Your task to perform on an android device: toggle pop-ups in chrome Image 0: 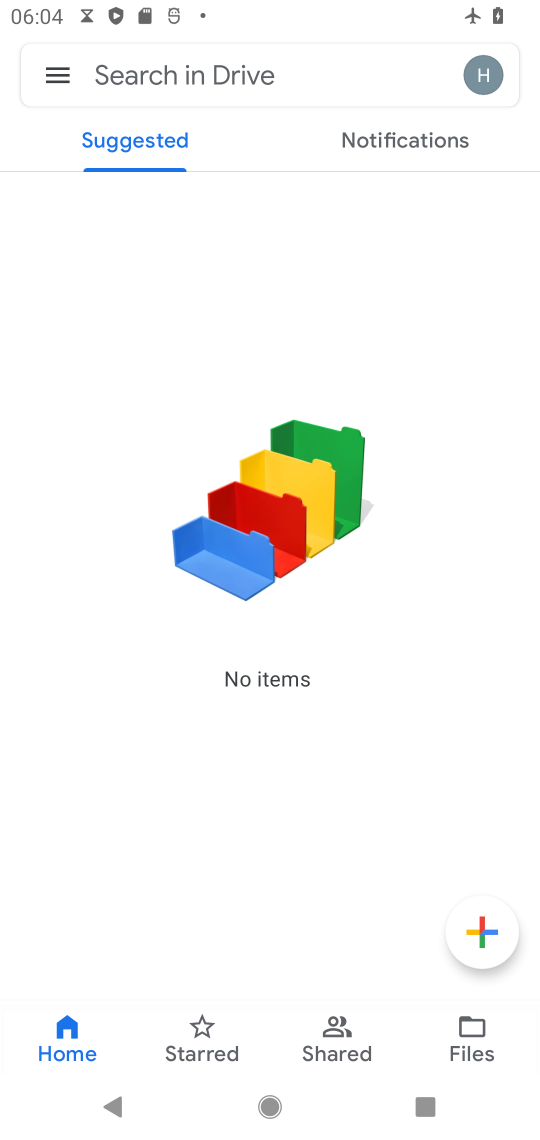
Step 0: press home button
Your task to perform on an android device: toggle pop-ups in chrome Image 1: 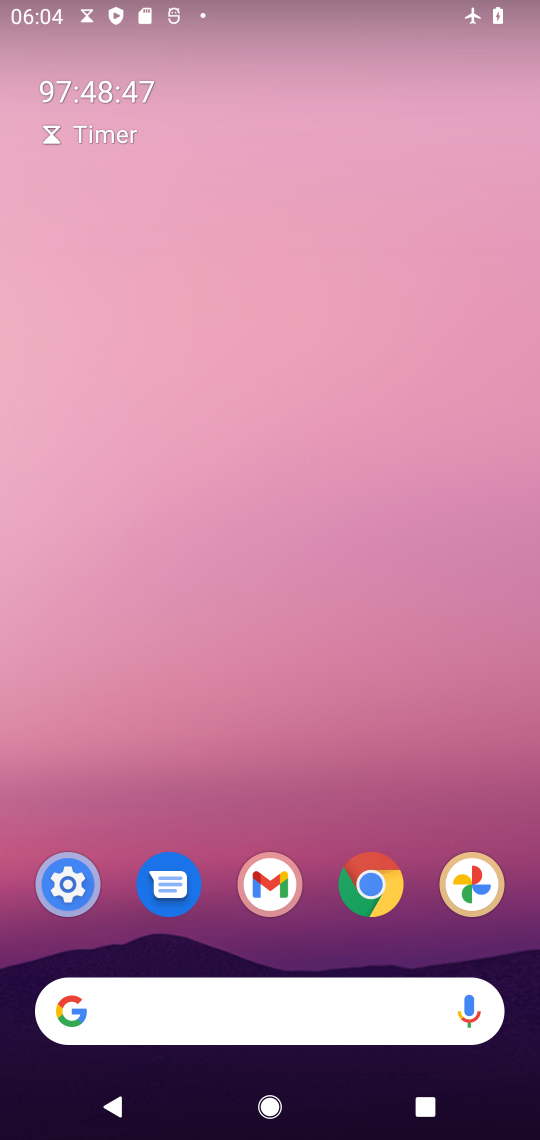
Step 1: drag from (347, 808) to (377, 183)
Your task to perform on an android device: toggle pop-ups in chrome Image 2: 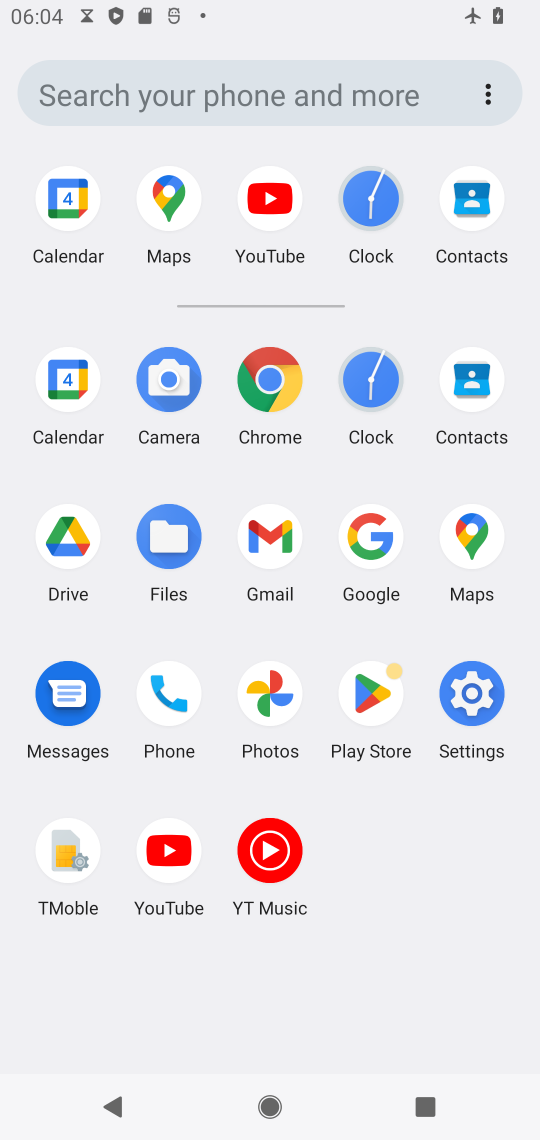
Step 2: click (279, 372)
Your task to perform on an android device: toggle pop-ups in chrome Image 3: 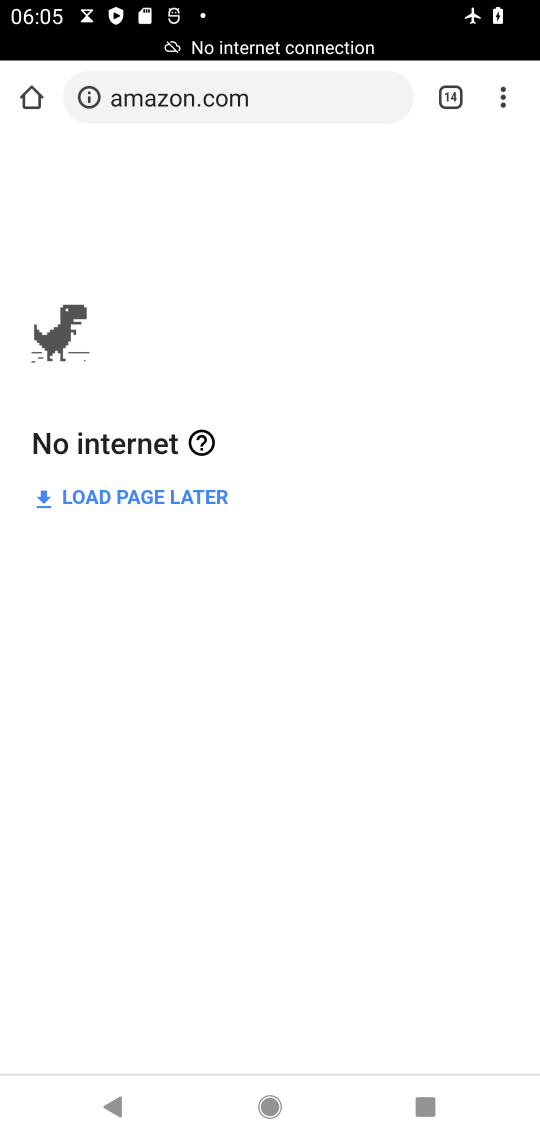
Step 3: click (524, 83)
Your task to perform on an android device: toggle pop-ups in chrome Image 4: 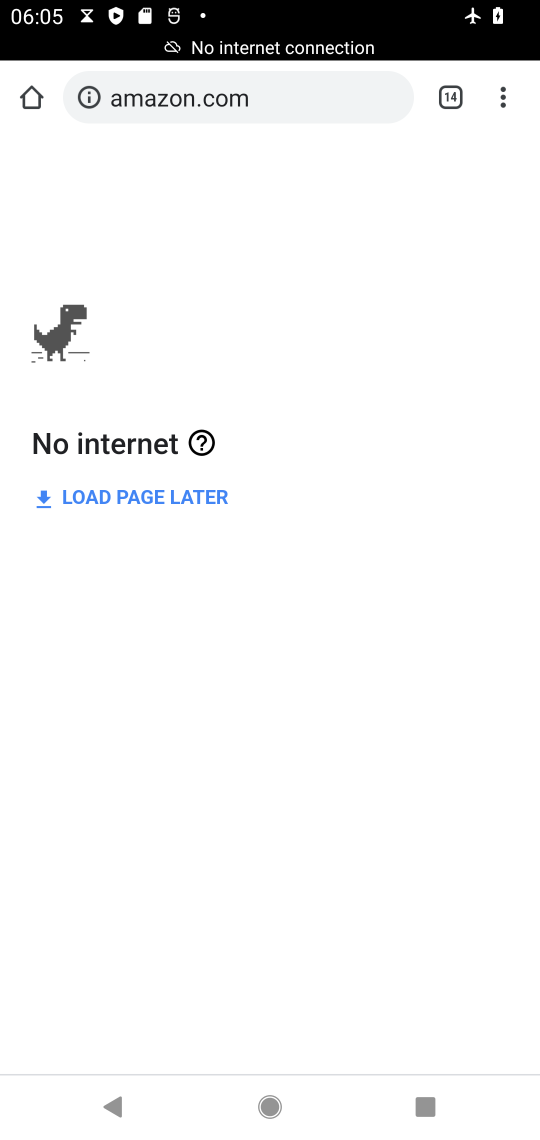
Step 4: click (510, 92)
Your task to perform on an android device: toggle pop-ups in chrome Image 5: 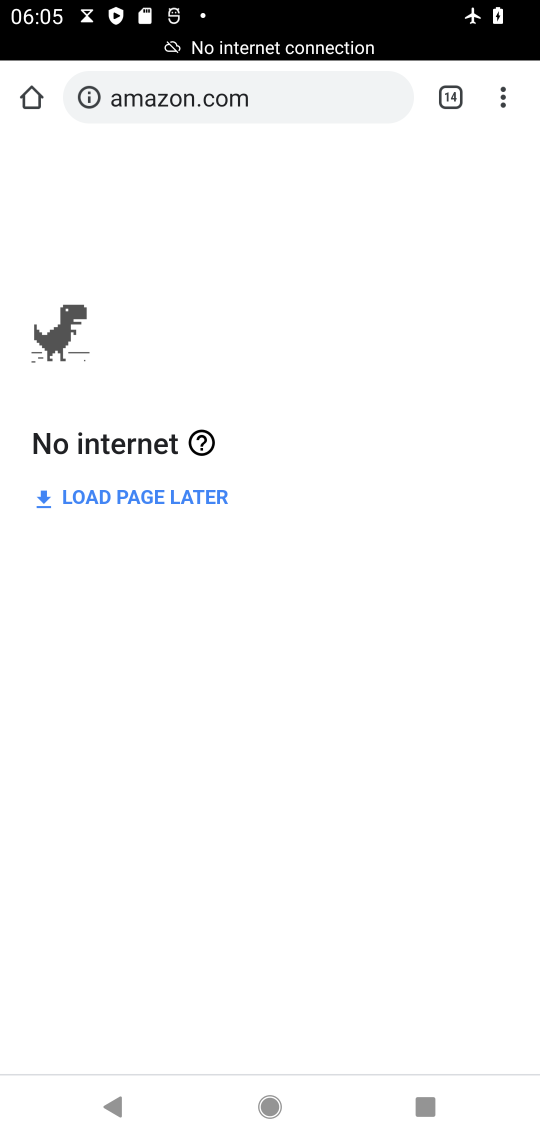
Step 5: click (497, 112)
Your task to perform on an android device: toggle pop-ups in chrome Image 6: 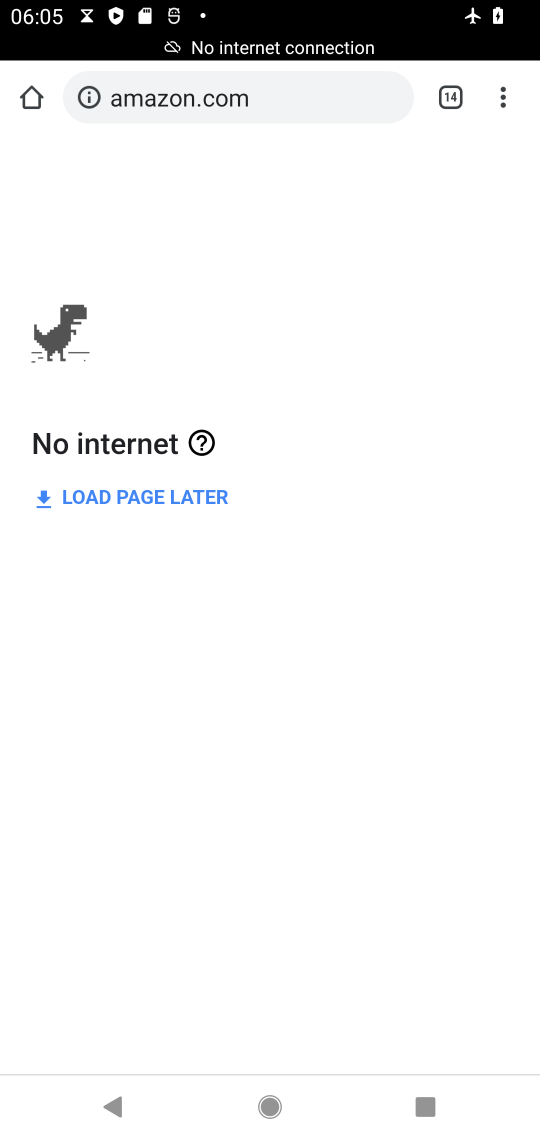
Step 6: click (487, 99)
Your task to perform on an android device: toggle pop-ups in chrome Image 7: 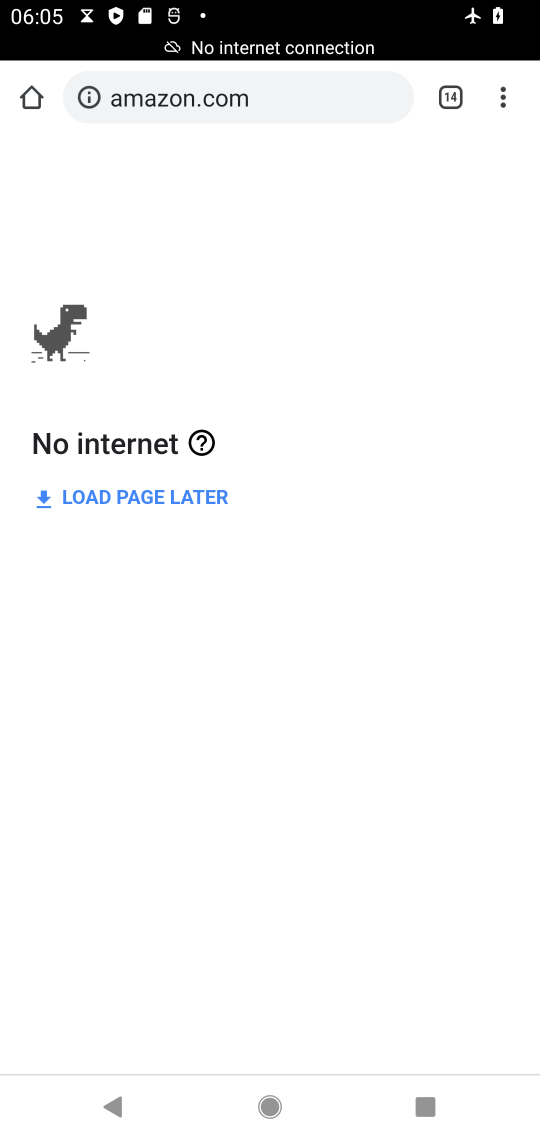
Step 7: click (509, 94)
Your task to perform on an android device: toggle pop-ups in chrome Image 8: 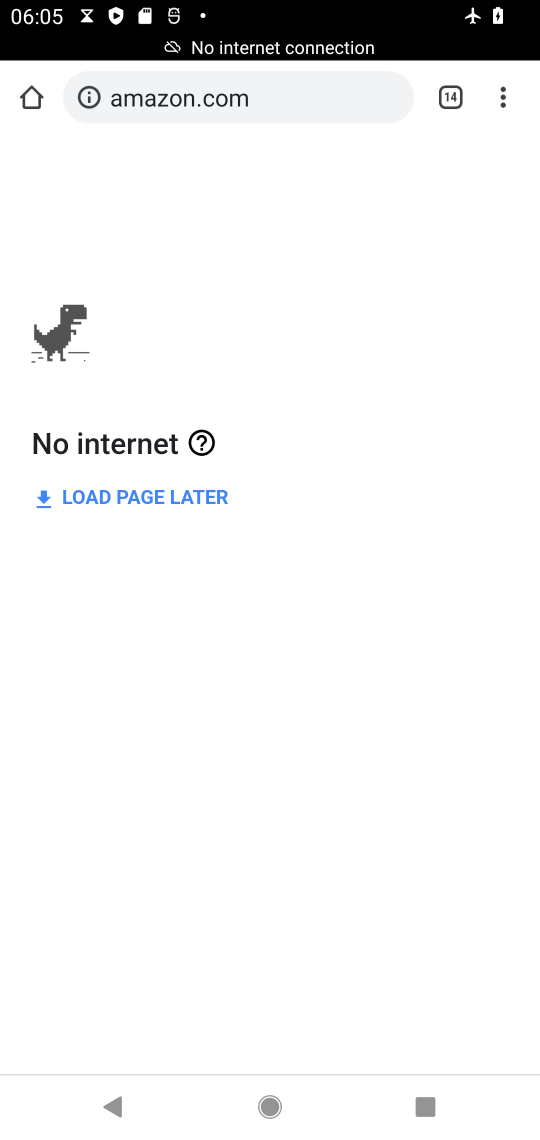
Step 8: click (504, 94)
Your task to perform on an android device: toggle pop-ups in chrome Image 9: 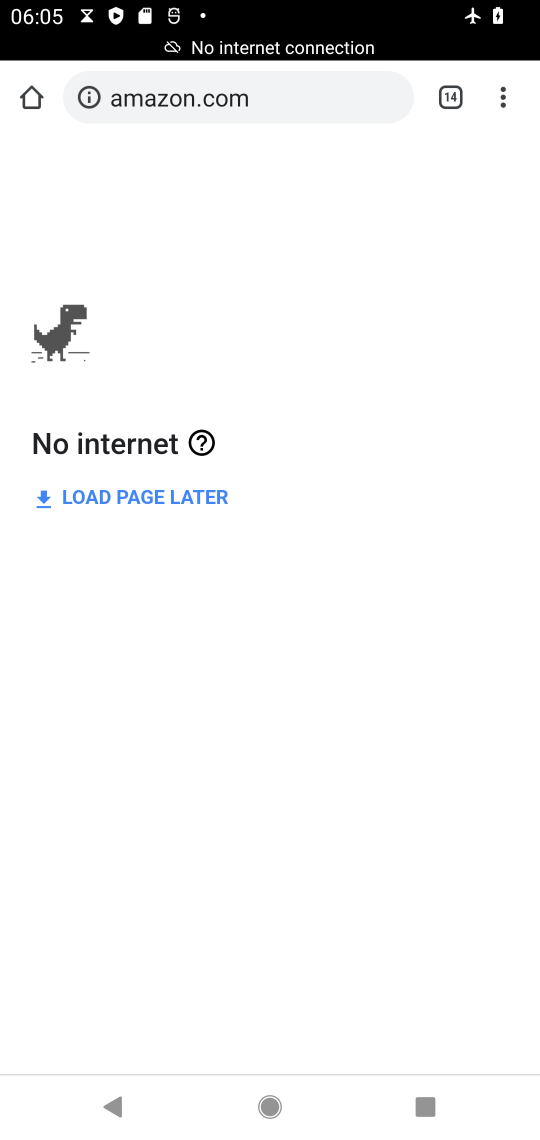
Step 9: click (498, 104)
Your task to perform on an android device: toggle pop-ups in chrome Image 10: 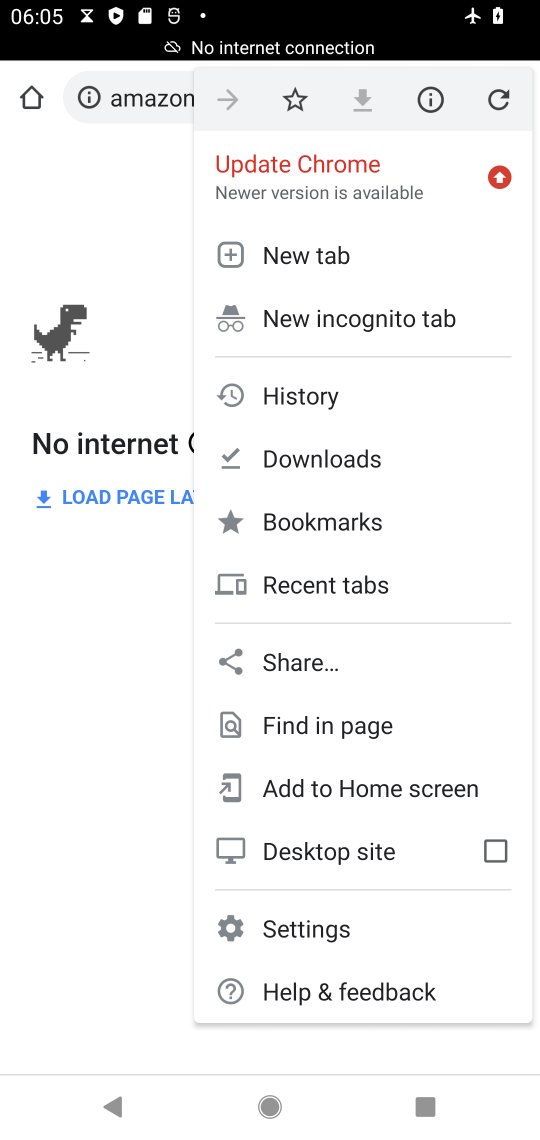
Step 10: click (301, 926)
Your task to perform on an android device: toggle pop-ups in chrome Image 11: 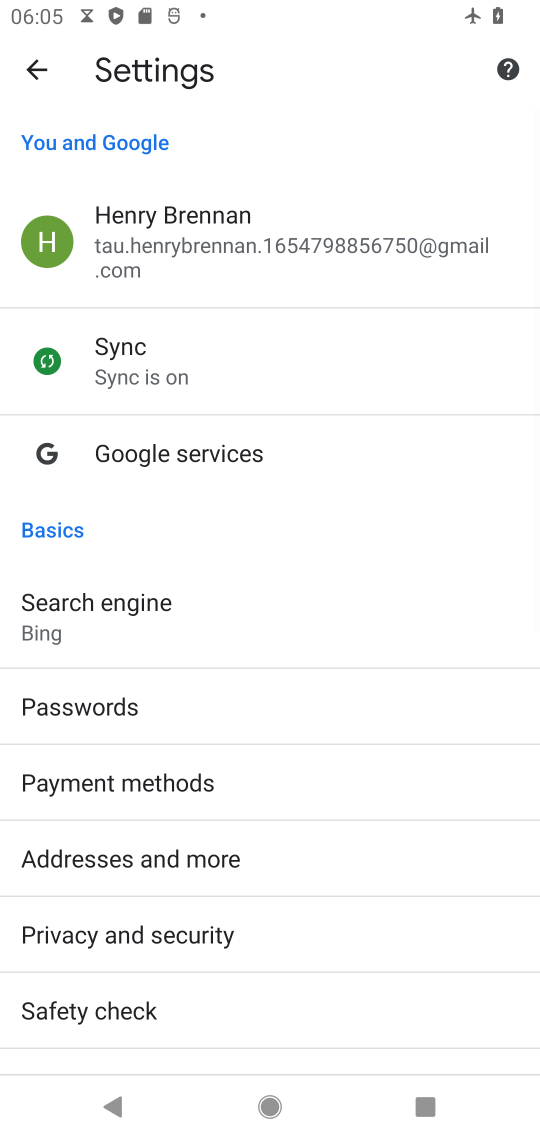
Step 11: drag from (202, 947) to (351, 272)
Your task to perform on an android device: toggle pop-ups in chrome Image 12: 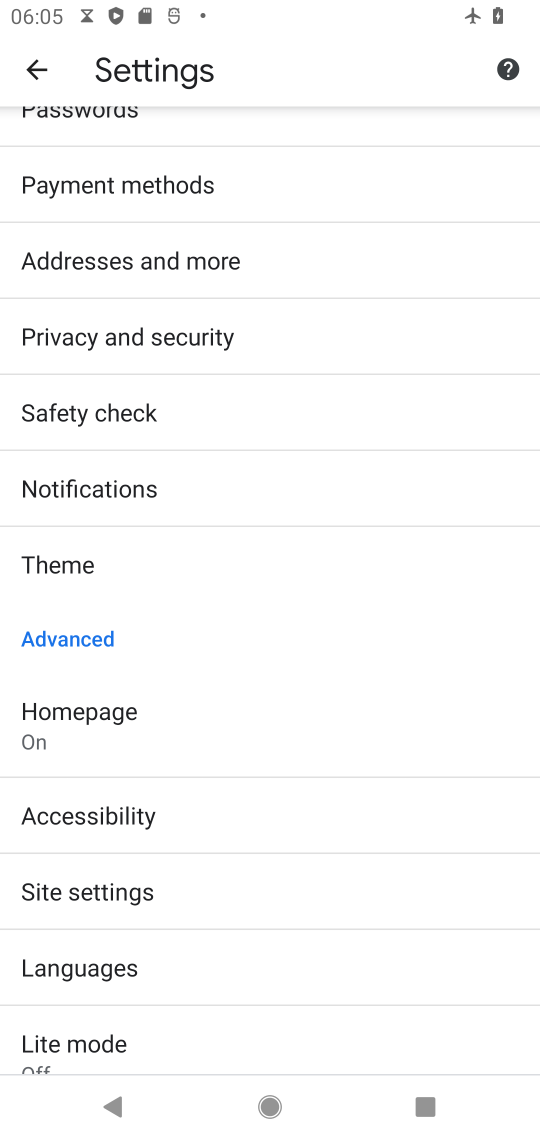
Step 12: click (181, 893)
Your task to perform on an android device: toggle pop-ups in chrome Image 13: 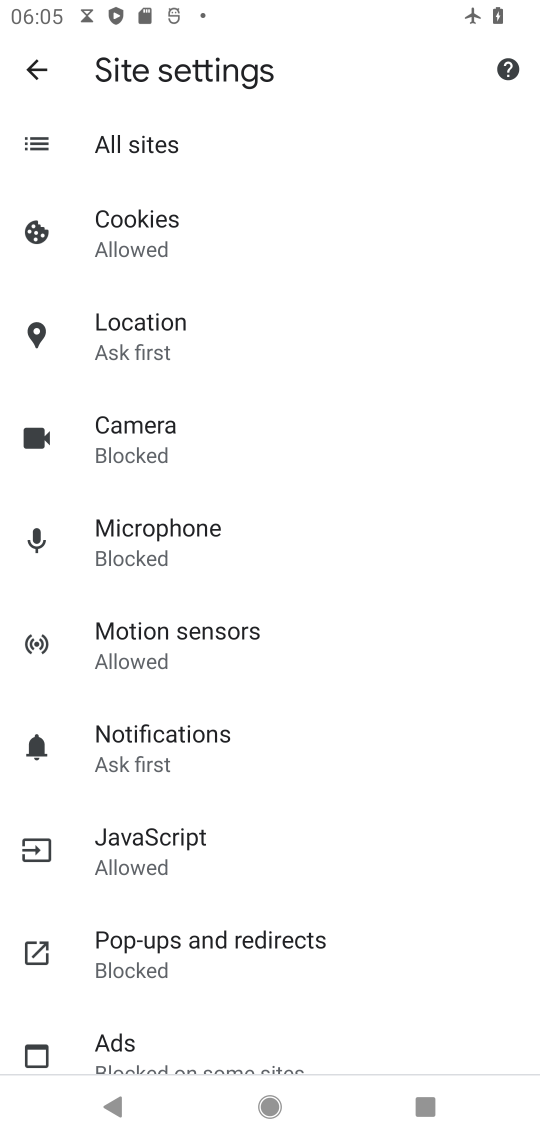
Step 13: click (197, 936)
Your task to perform on an android device: toggle pop-ups in chrome Image 14: 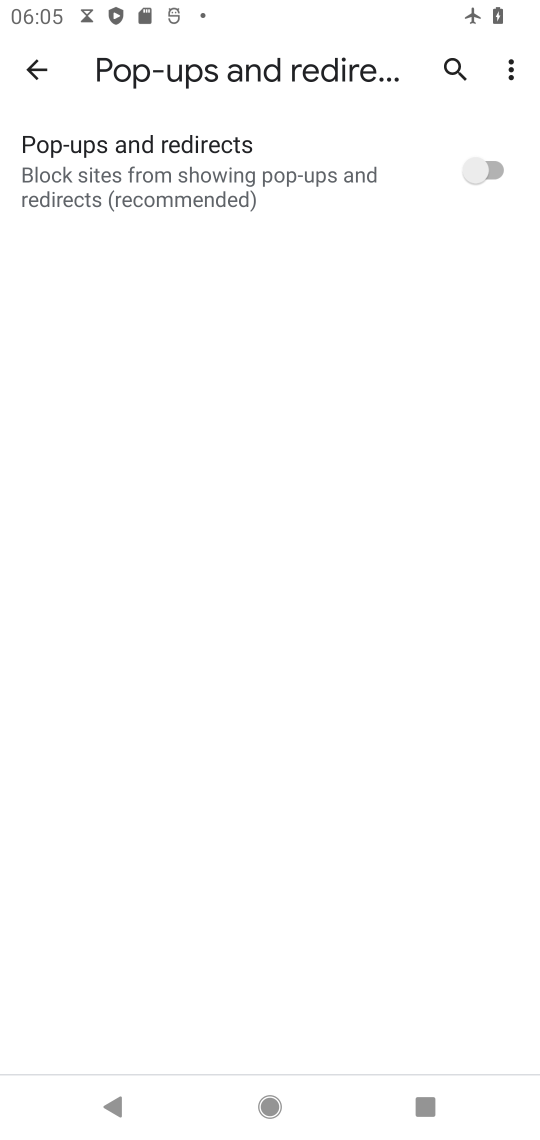
Step 14: click (491, 168)
Your task to perform on an android device: toggle pop-ups in chrome Image 15: 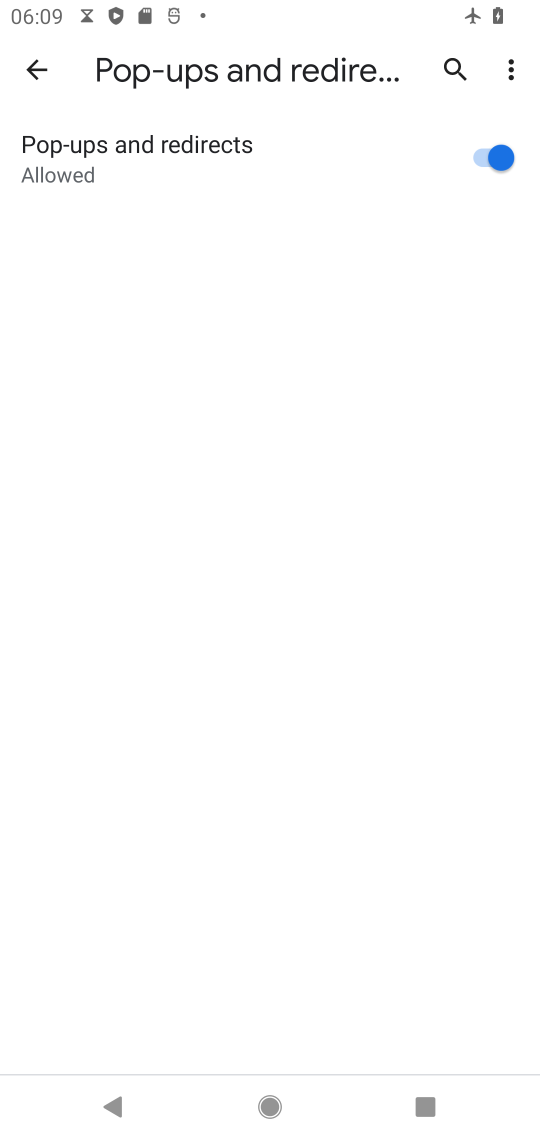
Step 15: task complete